Your task to perform on an android device: When is my next appointment? Image 0: 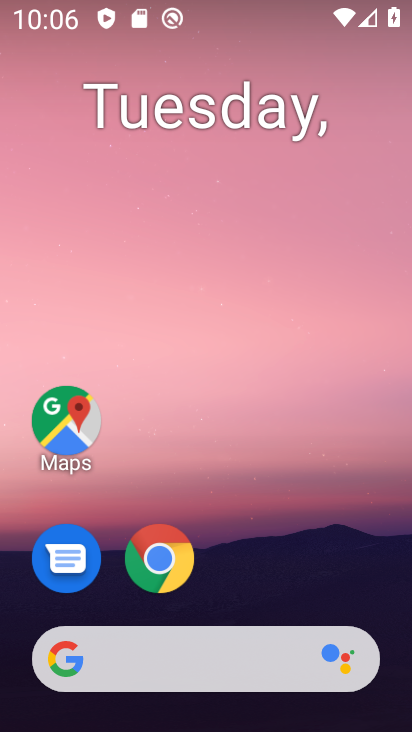
Step 0: drag from (362, 535) to (356, 68)
Your task to perform on an android device: When is my next appointment? Image 1: 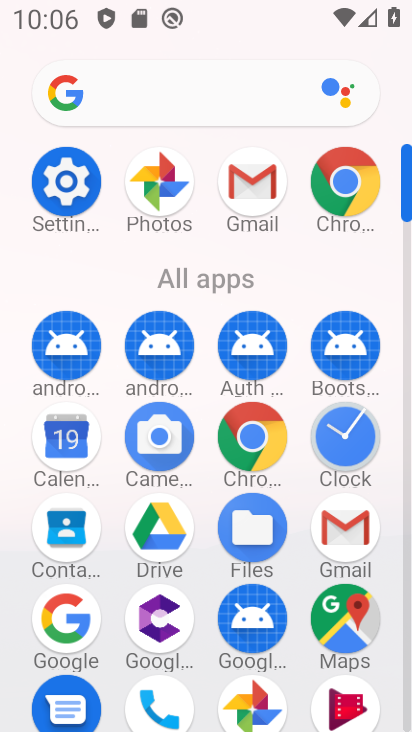
Step 1: click (76, 465)
Your task to perform on an android device: When is my next appointment? Image 2: 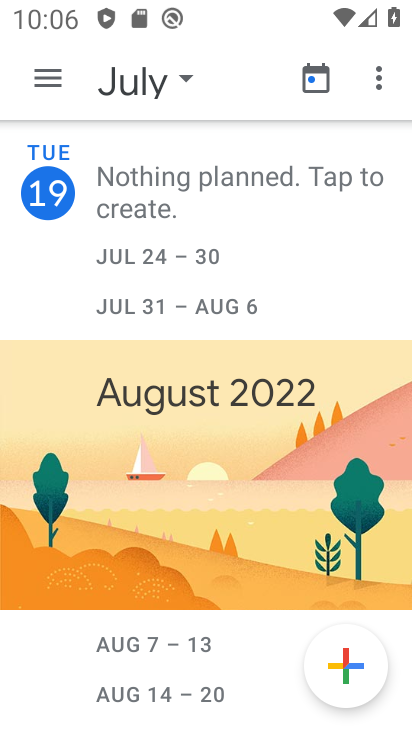
Step 2: task complete